Your task to perform on an android device: turn smart compose on in the gmail app Image 0: 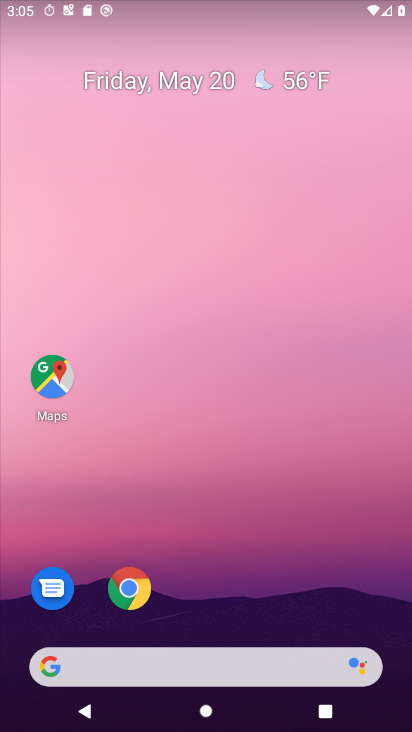
Step 0: press home button
Your task to perform on an android device: turn smart compose on in the gmail app Image 1: 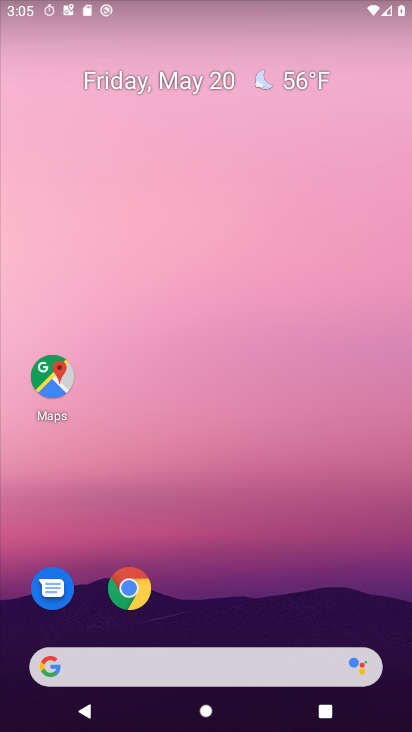
Step 1: drag from (20, 608) to (215, 178)
Your task to perform on an android device: turn smart compose on in the gmail app Image 2: 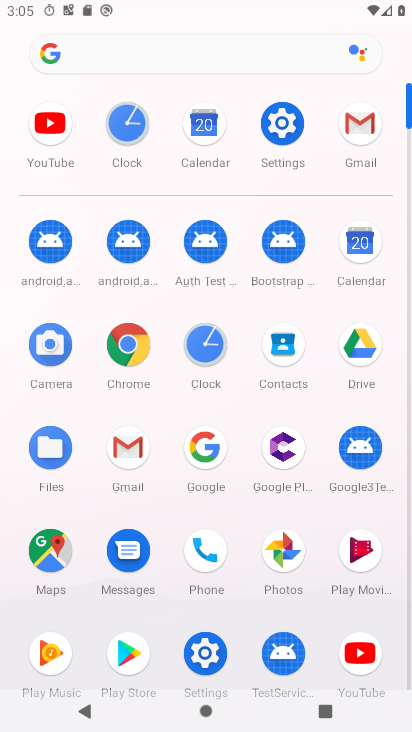
Step 2: click (119, 450)
Your task to perform on an android device: turn smart compose on in the gmail app Image 3: 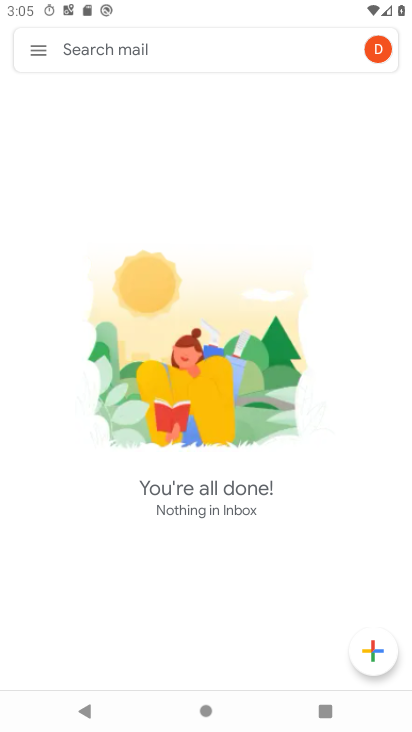
Step 3: click (27, 43)
Your task to perform on an android device: turn smart compose on in the gmail app Image 4: 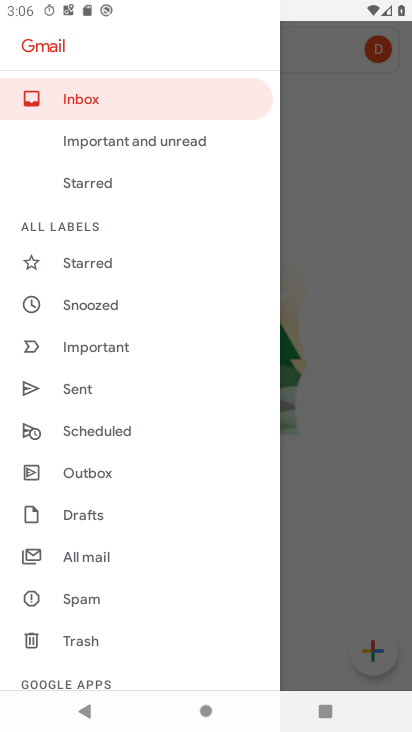
Step 4: drag from (80, 658) to (164, 136)
Your task to perform on an android device: turn smart compose on in the gmail app Image 5: 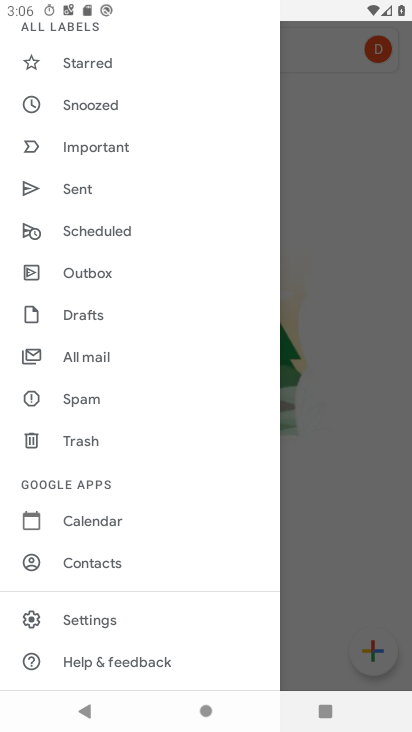
Step 5: click (81, 618)
Your task to perform on an android device: turn smart compose on in the gmail app Image 6: 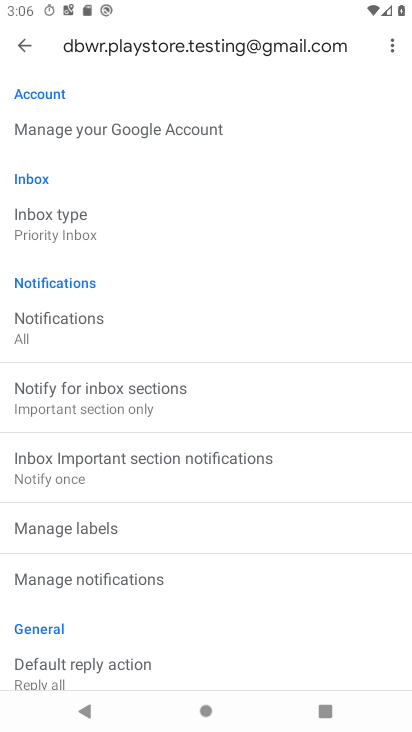
Step 6: task complete